Your task to perform on an android device: change alarm snooze length Image 0: 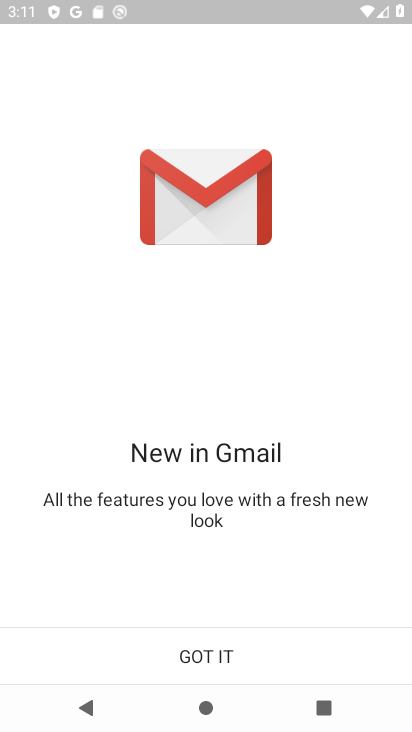
Step 0: press home button
Your task to perform on an android device: change alarm snooze length Image 1: 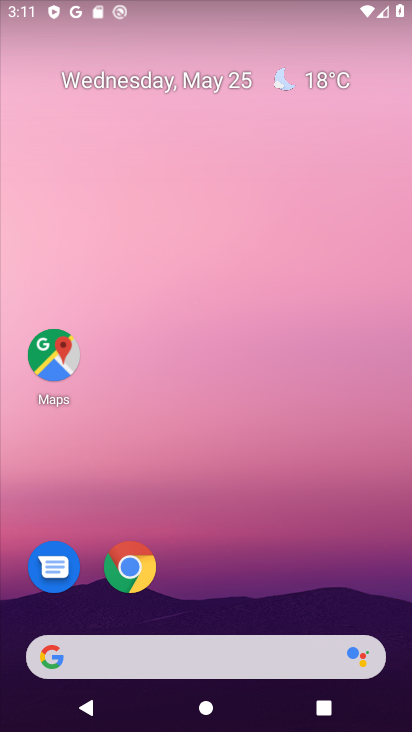
Step 1: drag from (383, 593) to (402, 122)
Your task to perform on an android device: change alarm snooze length Image 2: 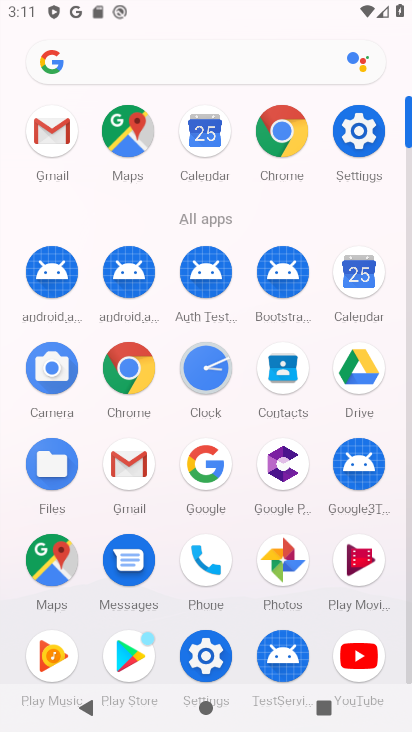
Step 2: click (200, 376)
Your task to perform on an android device: change alarm snooze length Image 3: 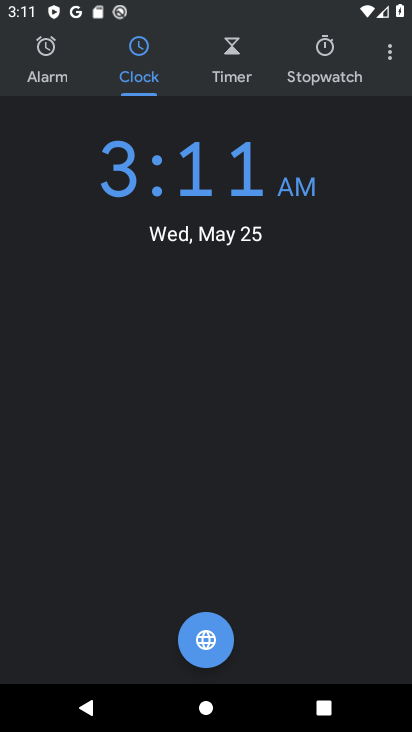
Step 3: click (391, 56)
Your task to perform on an android device: change alarm snooze length Image 4: 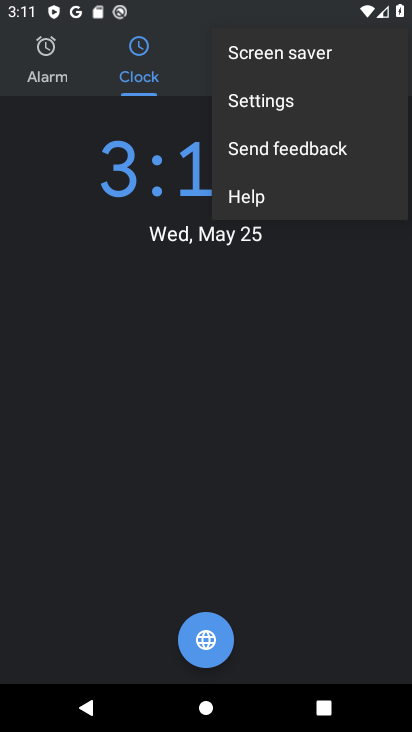
Step 4: click (315, 105)
Your task to perform on an android device: change alarm snooze length Image 5: 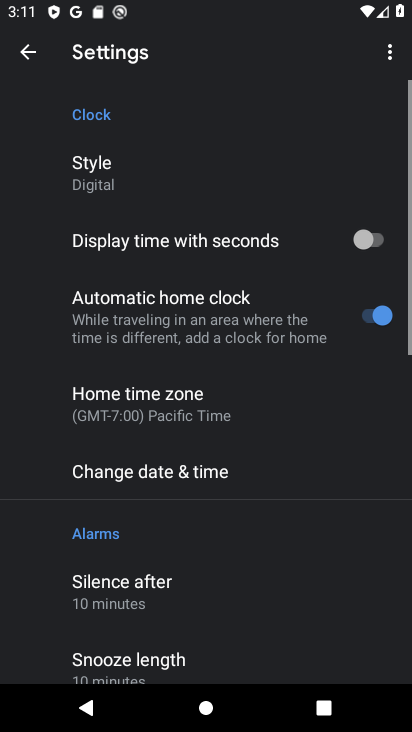
Step 5: drag from (283, 504) to (295, 333)
Your task to perform on an android device: change alarm snooze length Image 6: 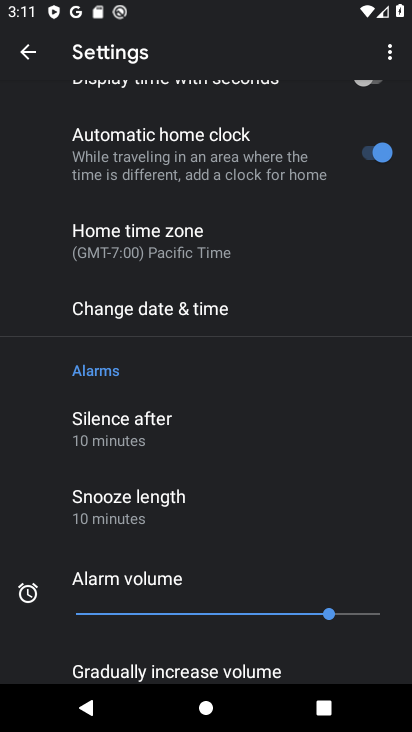
Step 6: drag from (296, 498) to (312, 425)
Your task to perform on an android device: change alarm snooze length Image 7: 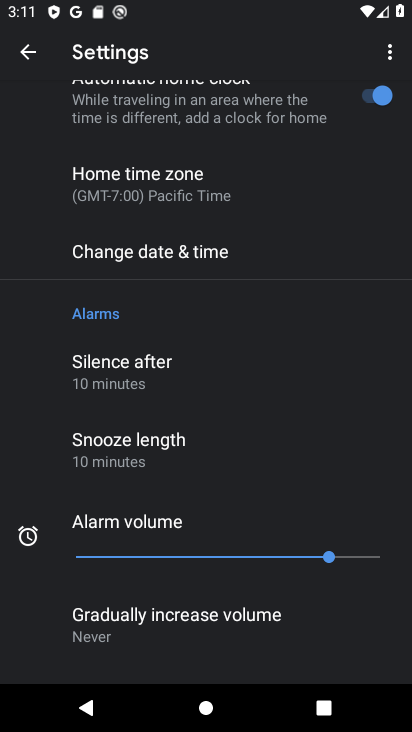
Step 7: drag from (321, 509) to (309, 394)
Your task to perform on an android device: change alarm snooze length Image 8: 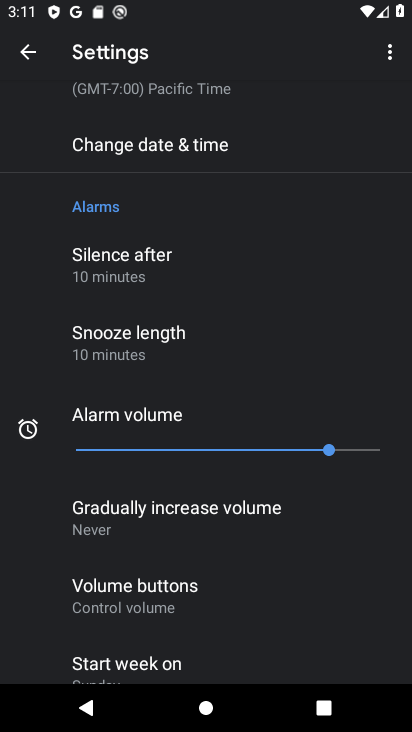
Step 8: drag from (343, 552) to (371, 426)
Your task to perform on an android device: change alarm snooze length Image 9: 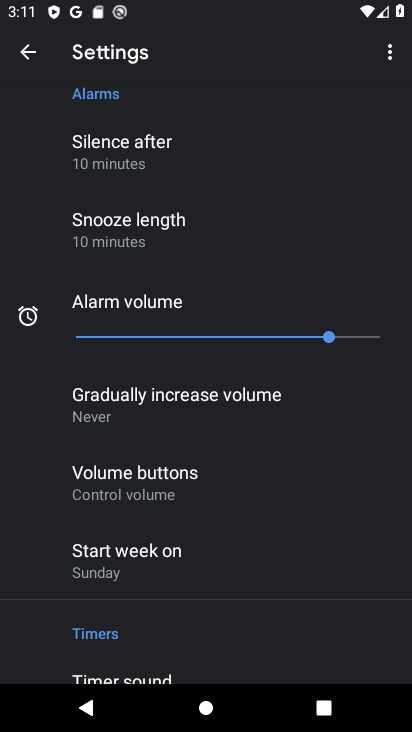
Step 9: drag from (374, 550) to (364, 460)
Your task to perform on an android device: change alarm snooze length Image 10: 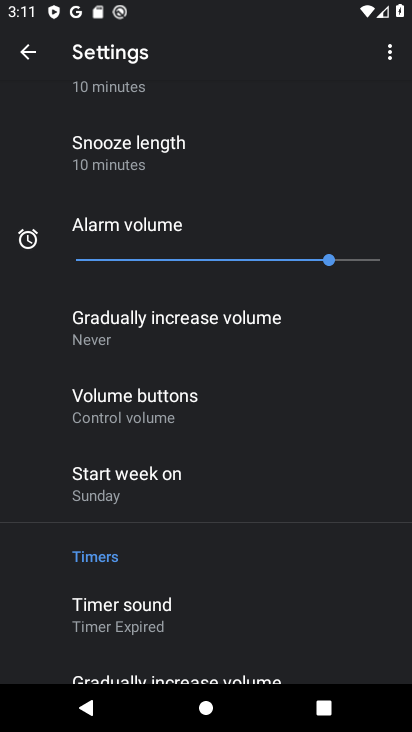
Step 10: drag from (353, 588) to (357, 483)
Your task to perform on an android device: change alarm snooze length Image 11: 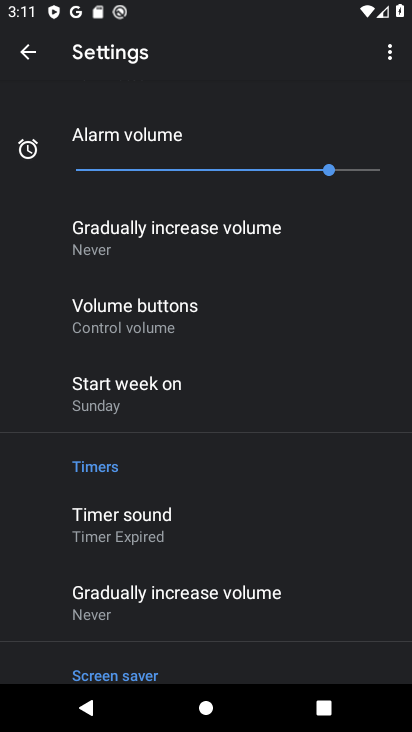
Step 11: drag from (355, 589) to (346, 350)
Your task to perform on an android device: change alarm snooze length Image 12: 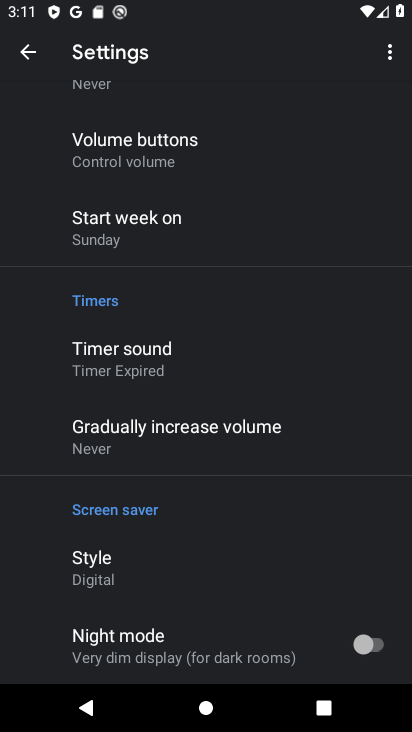
Step 12: drag from (349, 296) to (353, 395)
Your task to perform on an android device: change alarm snooze length Image 13: 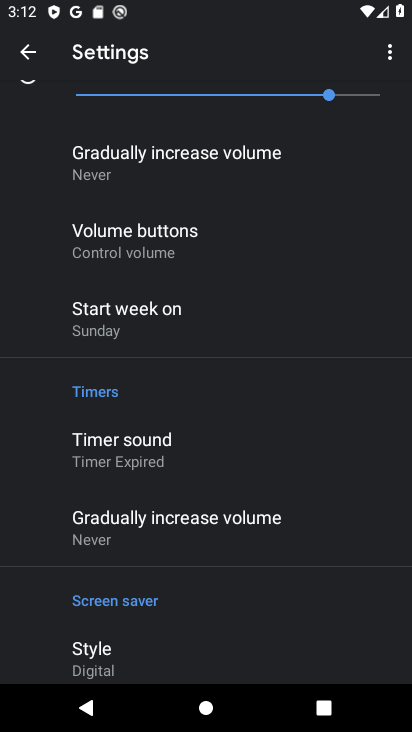
Step 13: drag from (352, 268) to (362, 370)
Your task to perform on an android device: change alarm snooze length Image 14: 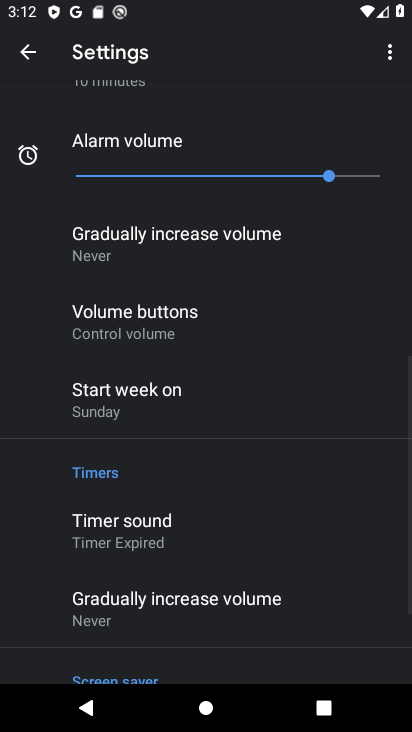
Step 14: drag from (367, 222) to (346, 352)
Your task to perform on an android device: change alarm snooze length Image 15: 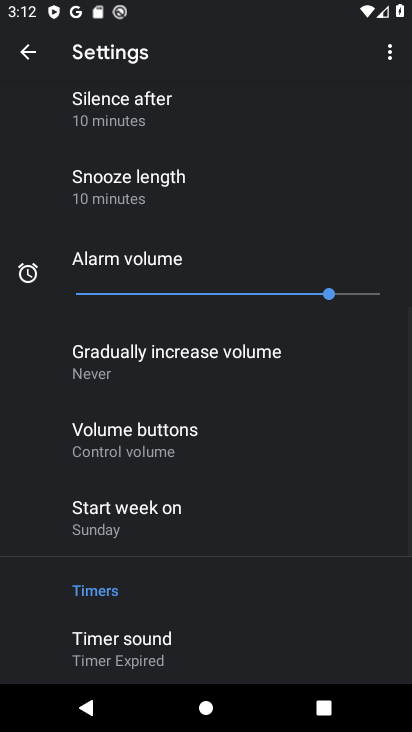
Step 15: drag from (344, 194) to (353, 313)
Your task to perform on an android device: change alarm snooze length Image 16: 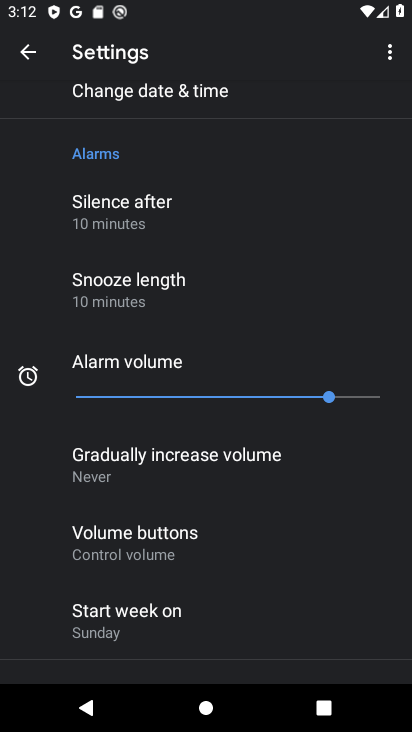
Step 16: click (150, 303)
Your task to perform on an android device: change alarm snooze length Image 17: 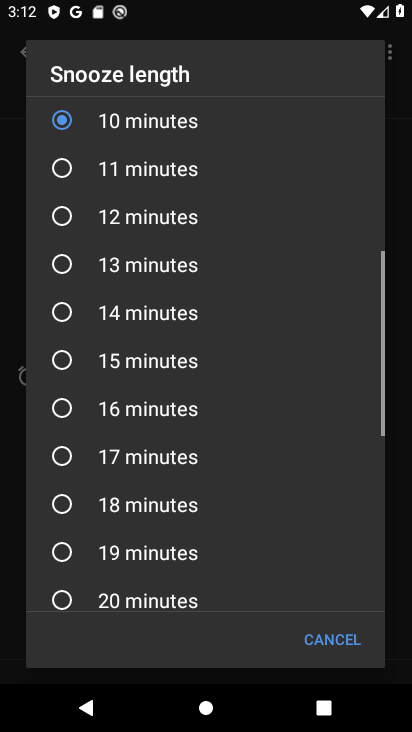
Step 17: click (164, 321)
Your task to perform on an android device: change alarm snooze length Image 18: 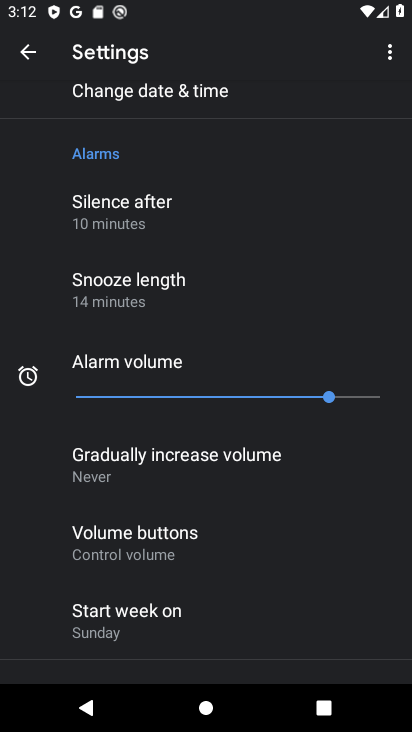
Step 18: task complete